Your task to perform on an android device: turn smart compose on in the gmail app Image 0: 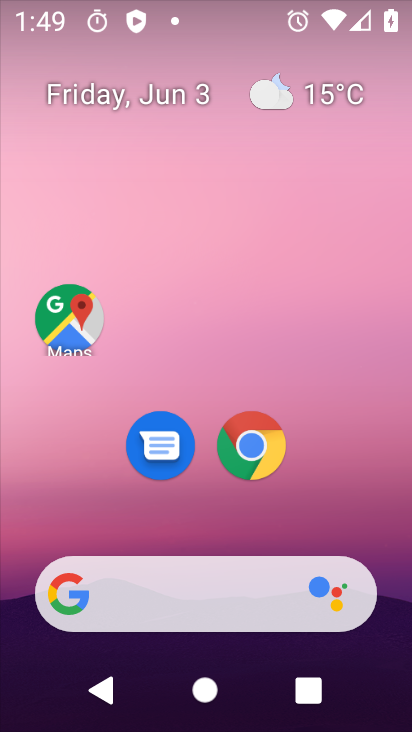
Step 0: drag from (224, 523) to (338, 179)
Your task to perform on an android device: turn smart compose on in the gmail app Image 1: 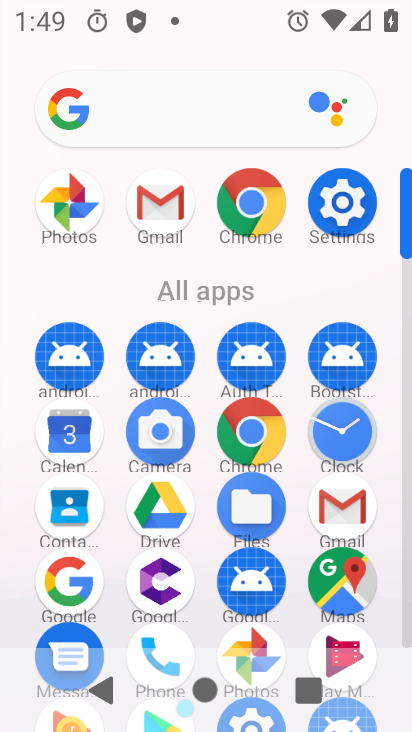
Step 1: click (164, 170)
Your task to perform on an android device: turn smart compose on in the gmail app Image 2: 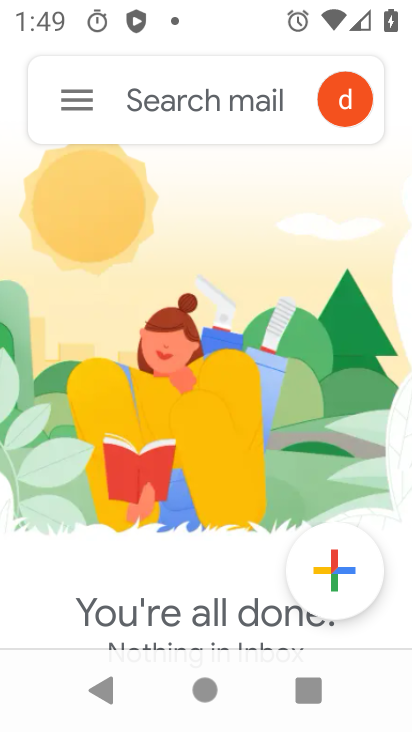
Step 2: click (96, 115)
Your task to perform on an android device: turn smart compose on in the gmail app Image 3: 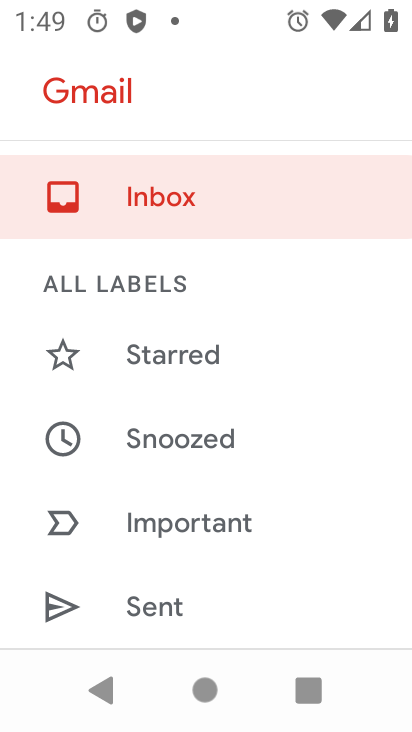
Step 3: drag from (173, 538) to (304, 163)
Your task to perform on an android device: turn smart compose on in the gmail app Image 4: 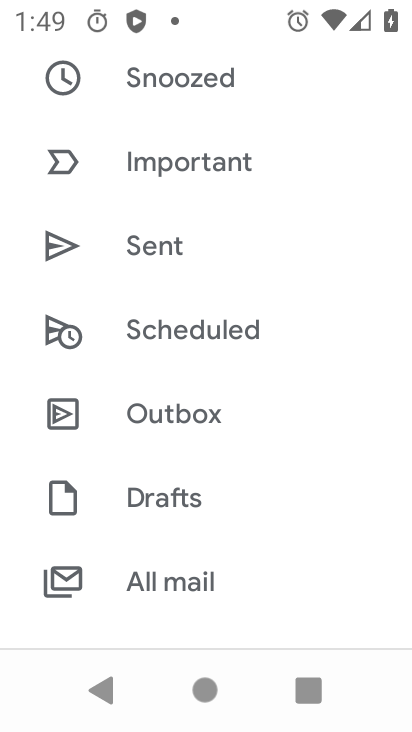
Step 4: drag from (104, 589) to (184, 230)
Your task to perform on an android device: turn smart compose on in the gmail app Image 5: 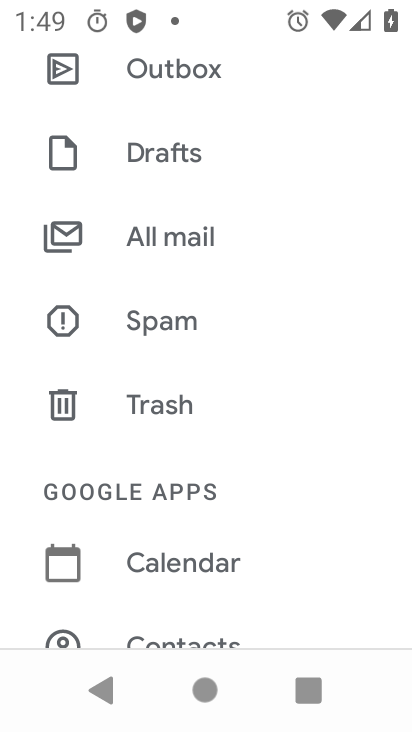
Step 5: drag from (328, 484) to (342, 231)
Your task to perform on an android device: turn smart compose on in the gmail app Image 6: 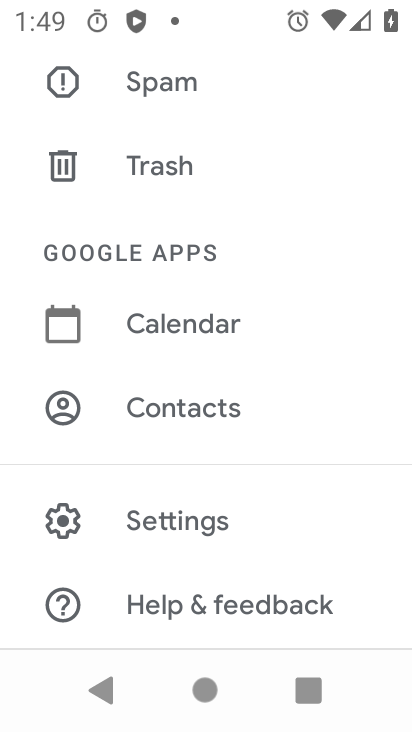
Step 6: drag from (209, 564) to (268, 201)
Your task to perform on an android device: turn smart compose on in the gmail app Image 7: 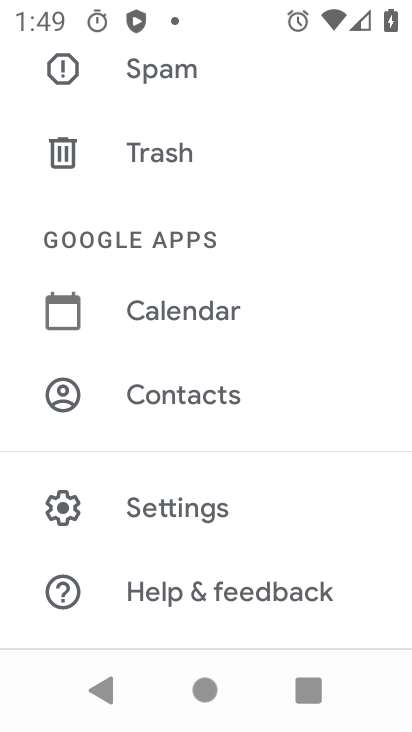
Step 7: click (173, 519)
Your task to perform on an android device: turn smart compose on in the gmail app Image 8: 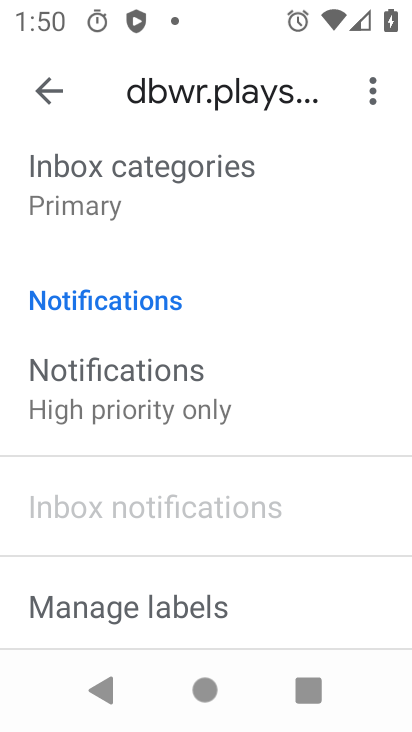
Step 8: task complete